Your task to perform on an android device: toggle pop-ups in chrome Image 0: 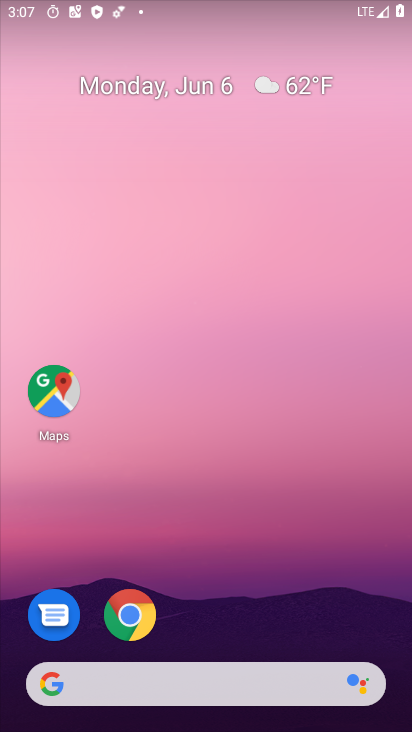
Step 0: drag from (286, 701) to (360, 57)
Your task to perform on an android device: toggle pop-ups in chrome Image 1: 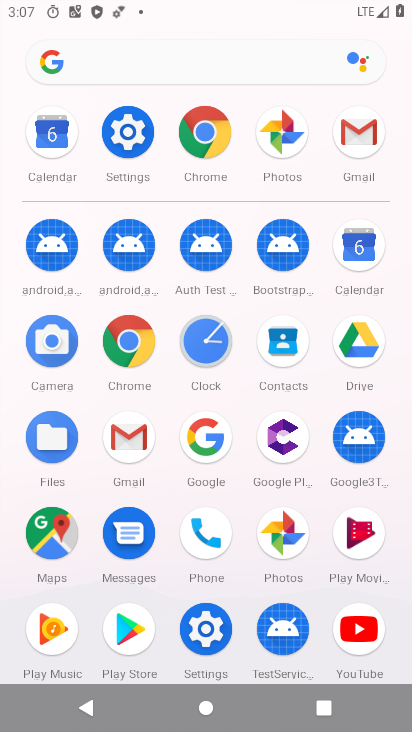
Step 1: click (141, 340)
Your task to perform on an android device: toggle pop-ups in chrome Image 2: 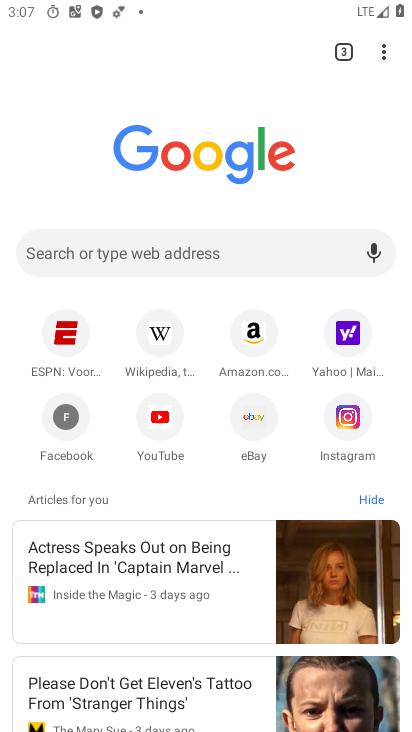
Step 2: drag from (387, 40) to (255, 439)
Your task to perform on an android device: toggle pop-ups in chrome Image 3: 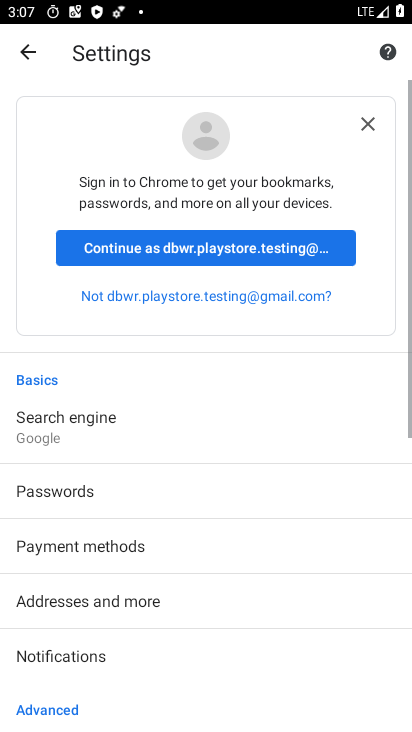
Step 3: drag from (123, 603) to (214, 20)
Your task to perform on an android device: toggle pop-ups in chrome Image 4: 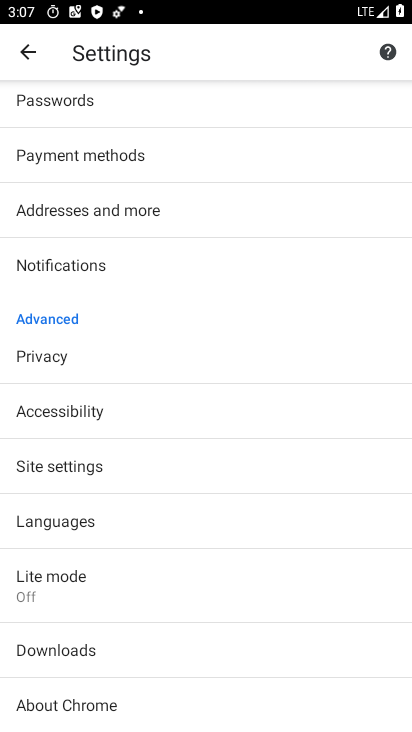
Step 4: click (83, 468)
Your task to perform on an android device: toggle pop-ups in chrome Image 5: 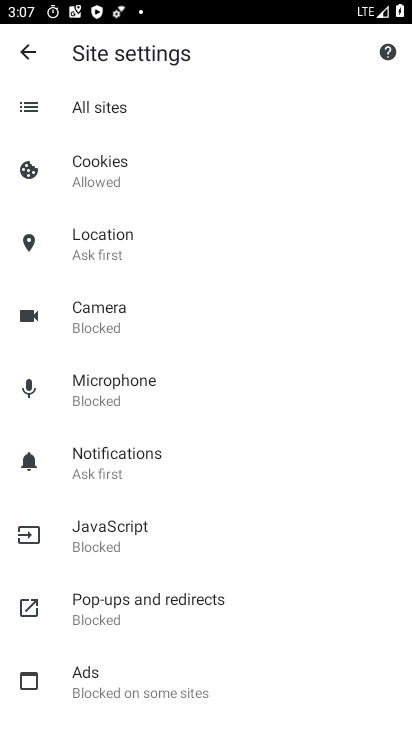
Step 5: click (116, 595)
Your task to perform on an android device: toggle pop-ups in chrome Image 6: 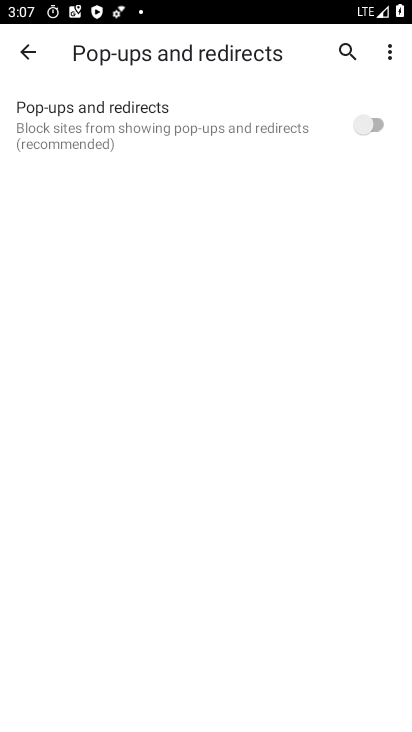
Step 6: click (383, 124)
Your task to perform on an android device: toggle pop-ups in chrome Image 7: 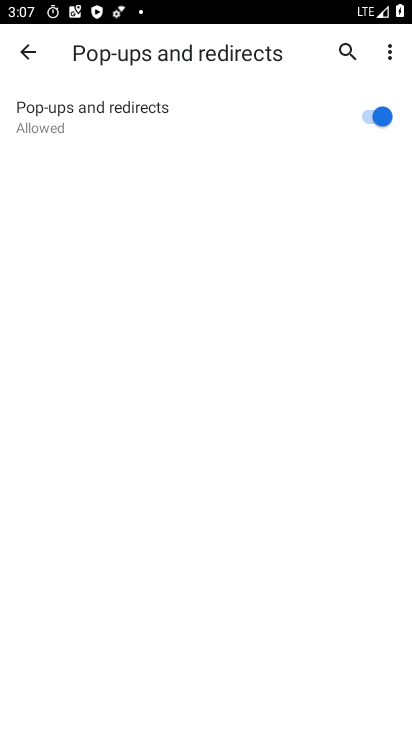
Step 7: task complete